Your task to perform on an android device: check out phone information Image 0: 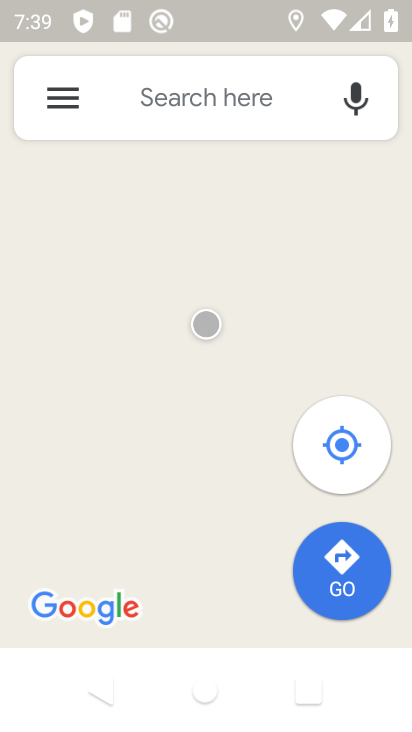
Step 0: click (259, 437)
Your task to perform on an android device: check out phone information Image 1: 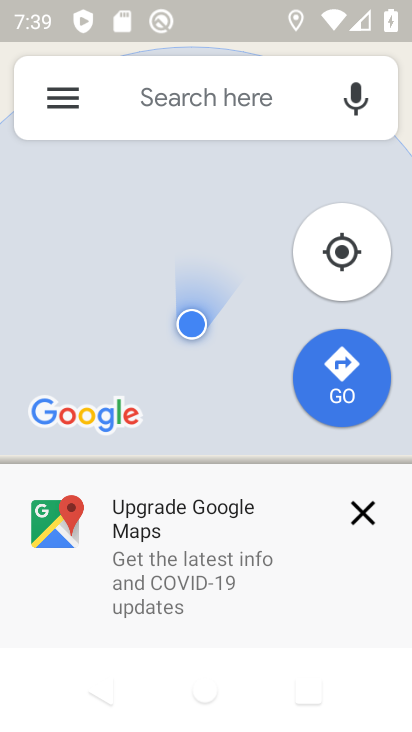
Step 1: press home button
Your task to perform on an android device: check out phone information Image 2: 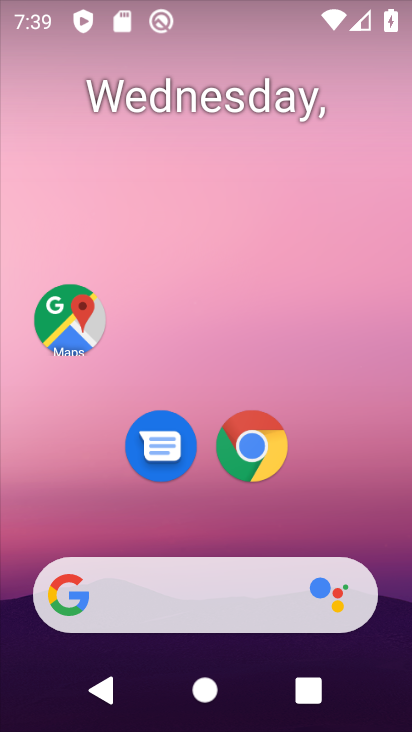
Step 2: drag from (370, 693) to (274, 60)
Your task to perform on an android device: check out phone information Image 3: 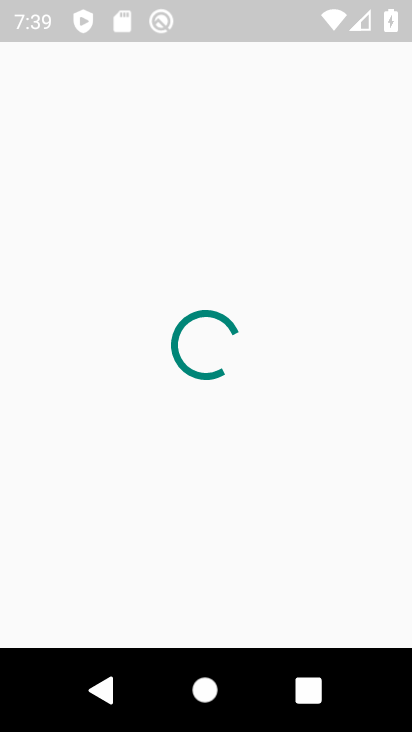
Step 3: click (161, 203)
Your task to perform on an android device: check out phone information Image 4: 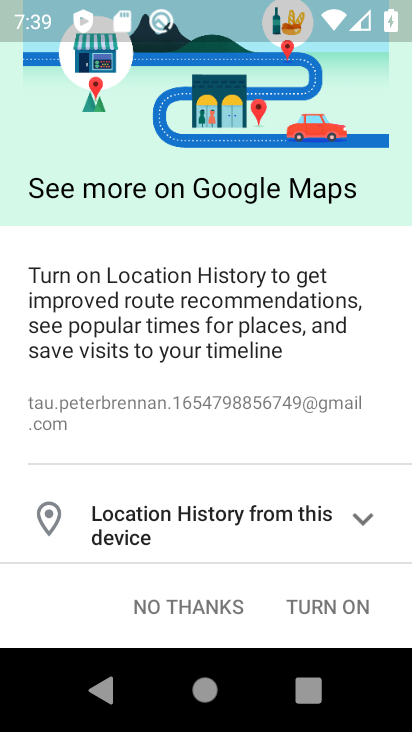
Step 4: press home button
Your task to perform on an android device: check out phone information Image 5: 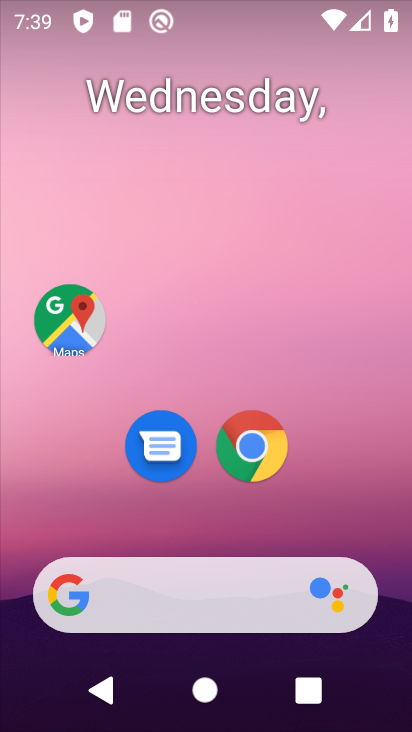
Step 5: drag from (371, 612) to (290, 117)
Your task to perform on an android device: check out phone information Image 6: 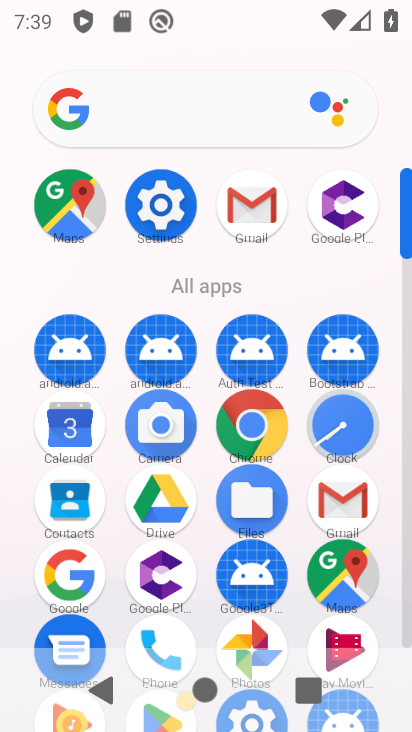
Step 6: click (157, 205)
Your task to perform on an android device: check out phone information Image 7: 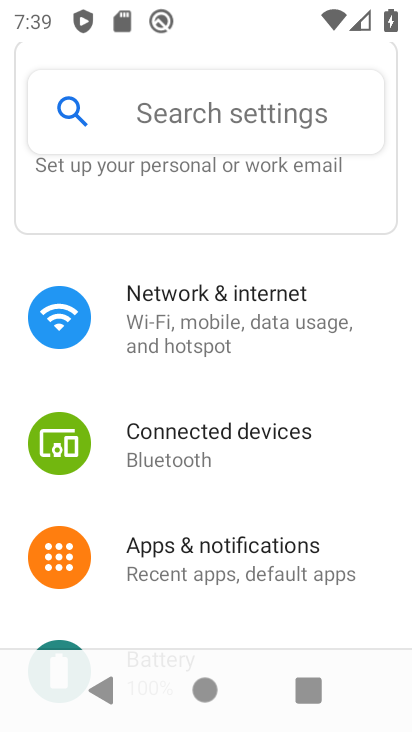
Step 7: drag from (320, 636) to (272, 11)
Your task to perform on an android device: check out phone information Image 8: 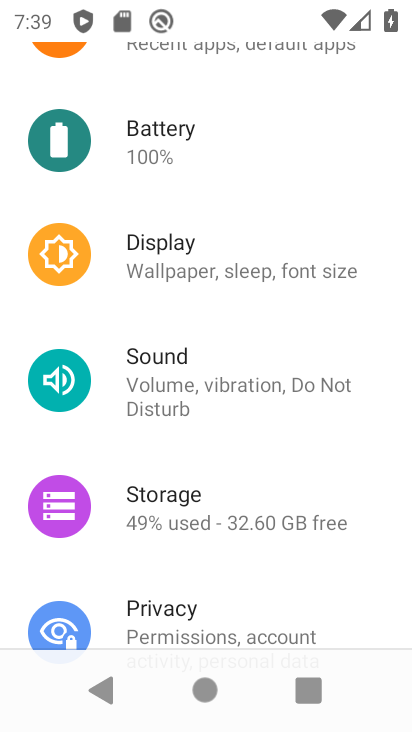
Step 8: drag from (343, 626) to (308, 2)
Your task to perform on an android device: check out phone information Image 9: 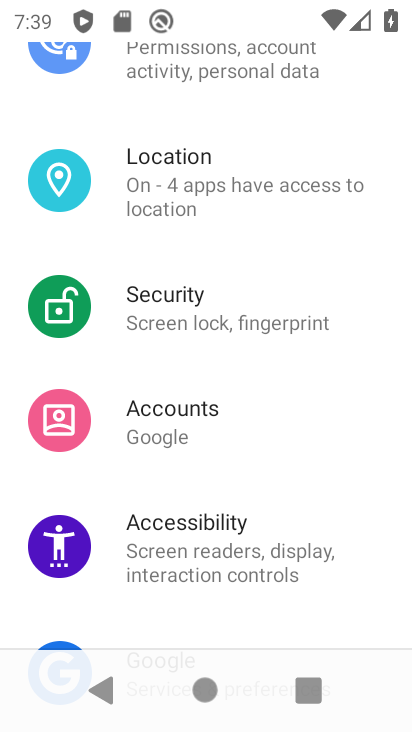
Step 9: drag from (350, 603) to (314, 33)
Your task to perform on an android device: check out phone information Image 10: 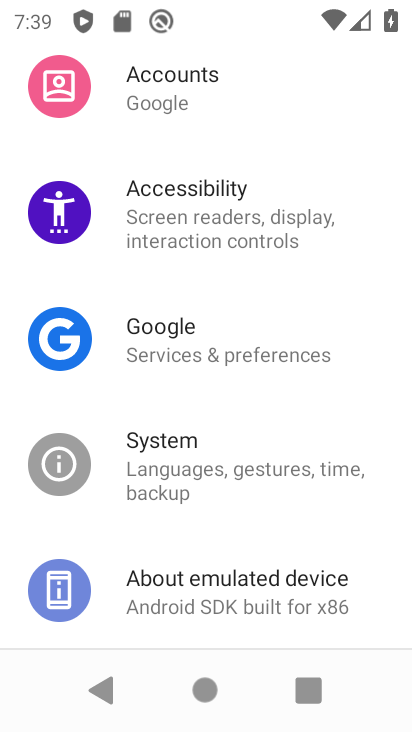
Step 10: click (233, 591)
Your task to perform on an android device: check out phone information Image 11: 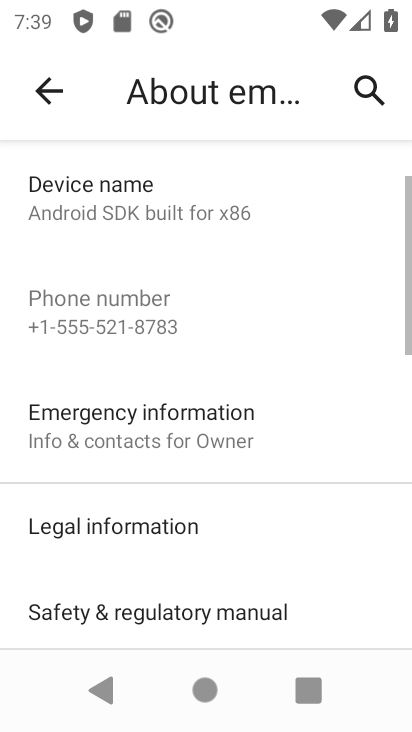
Step 11: task complete